Your task to perform on an android device: Open network settings Image 0: 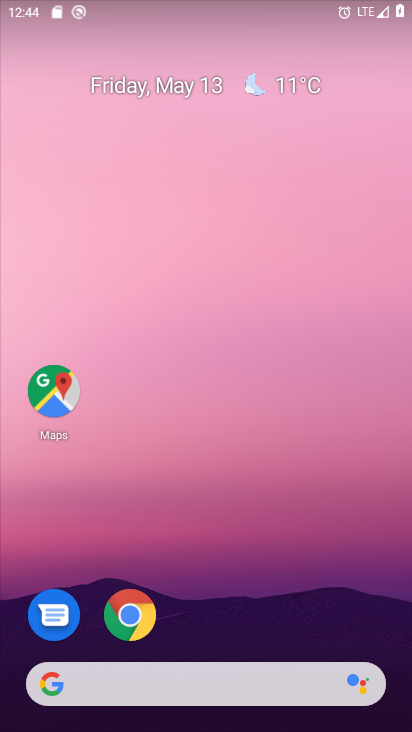
Step 0: drag from (291, 607) to (305, 45)
Your task to perform on an android device: Open network settings Image 1: 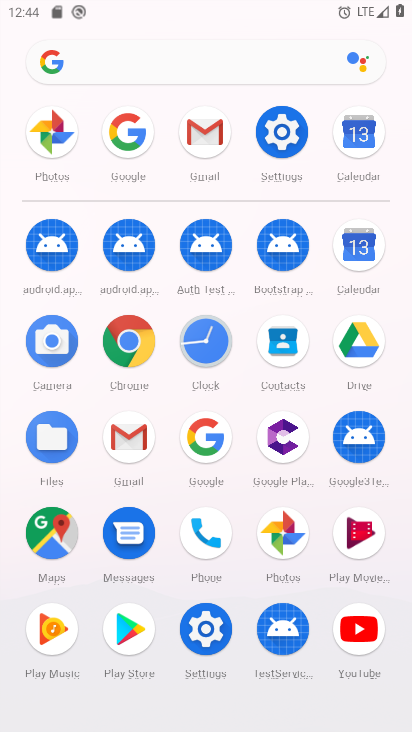
Step 1: click (281, 131)
Your task to perform on an android device: Open network settings Image 2: 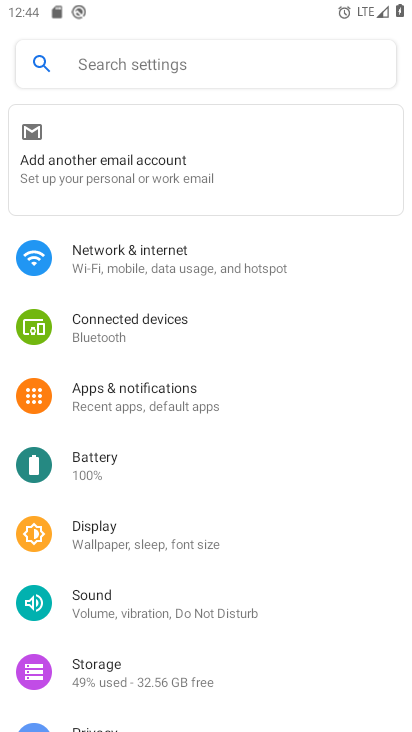
Step 2: click (169, 251)
Your task to perform on an android device: Open network settings Image 3: 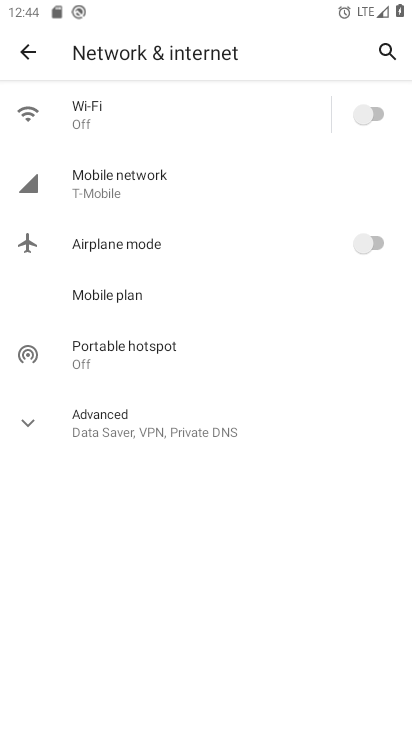
Step 3: task complete